Your task to perform on an android device: Go to eBay Image 0: 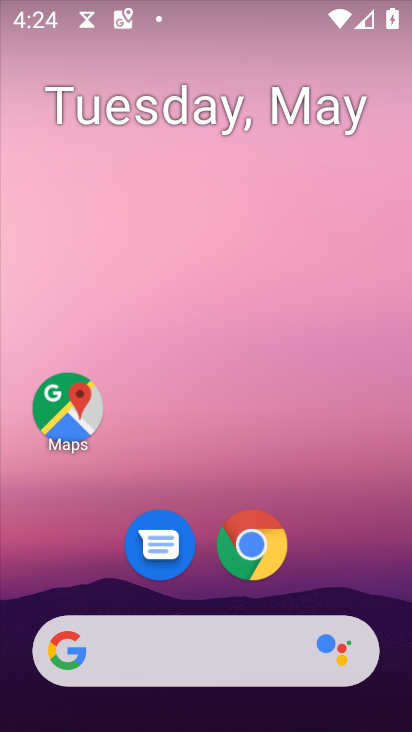
Step 0: drag from (326, 563) to (240, 142)
Your task to perform on an android device: Go to eBay Image 1: 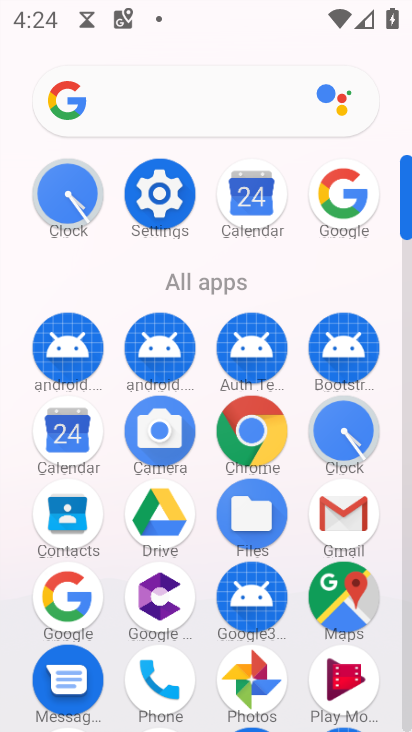
Step 1: click (337, 190)
Your task to perform on an android device: Go to eBay Image 2: 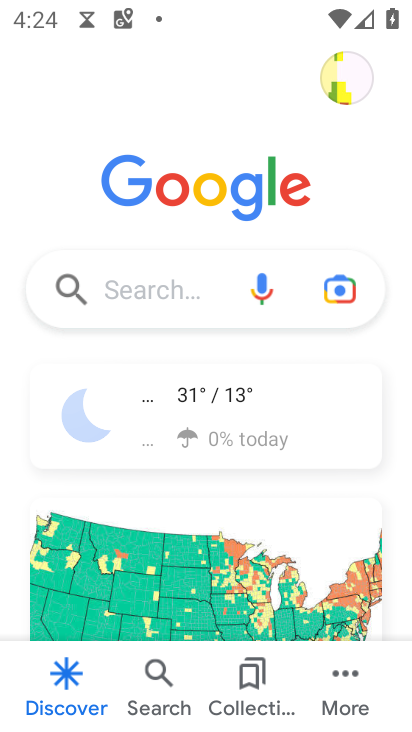
Step 2: click (203, 290)
Your task to perform on an android device: Go to eBay Image 3: 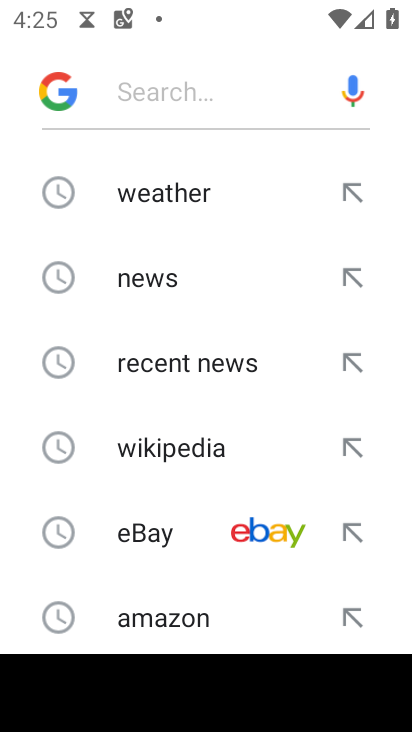
Step 3: type "eBay"
Your task to perform on an android device: Go to eBay Image 4: 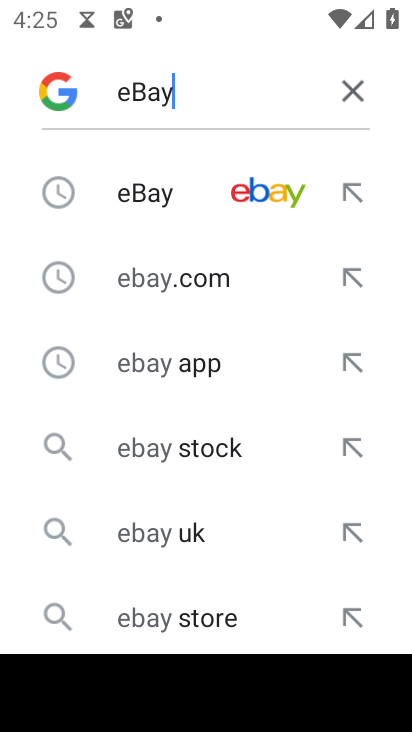
Step 4: click (162, 192)
Your task to perform on an android device: Go to eBay Image 5: 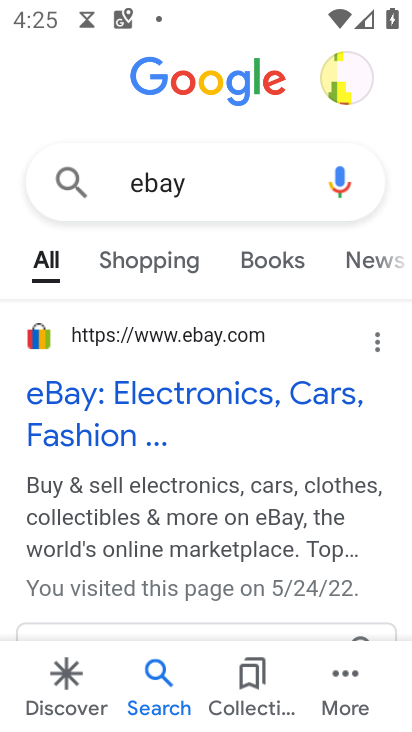
Step 5: click (122, 401)
Your task to perform on an android device: Go to eBay Image 6: 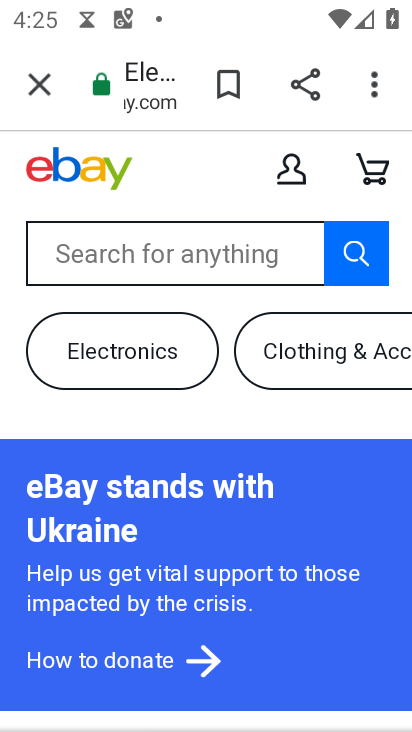
Step 6: task complete